Your task to perform on an android device: check data usage Image 0: 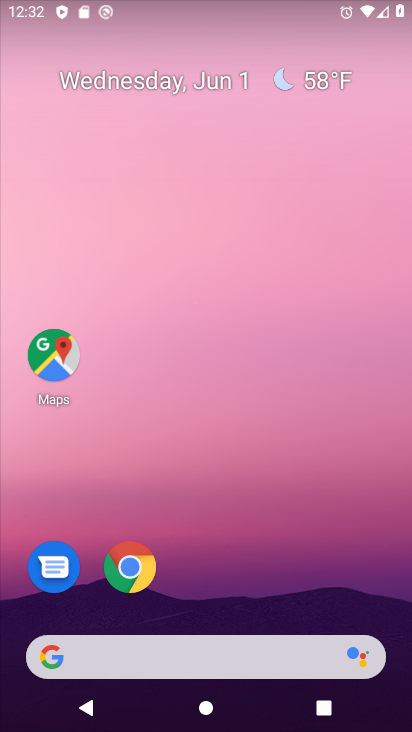
Step 0: click (395, 410)
Your task to perform on an android device: check data usage Image 1: 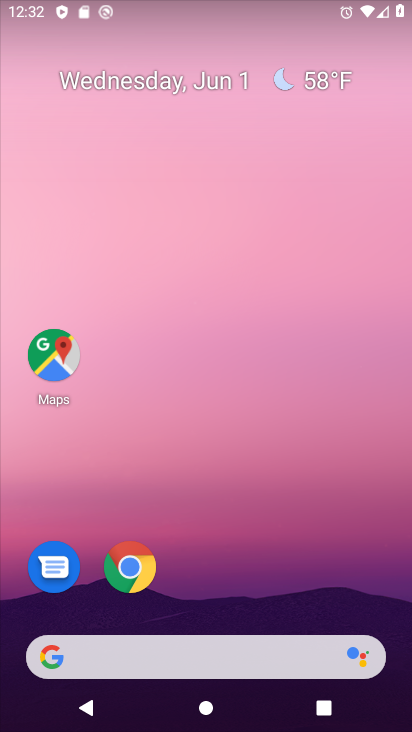
Step 1: drag from (245, 581) to (287, 70)
Your task to perform on an android device: check data usage Image 2: 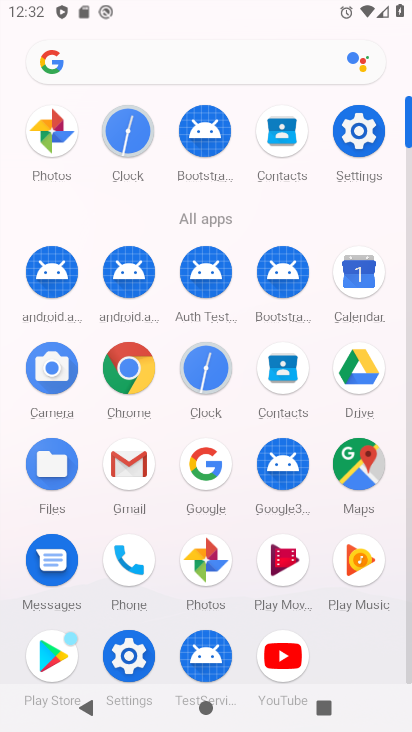
Step 2: click (365, 122)
Your task to perform on an android device: check data usage Image 3: 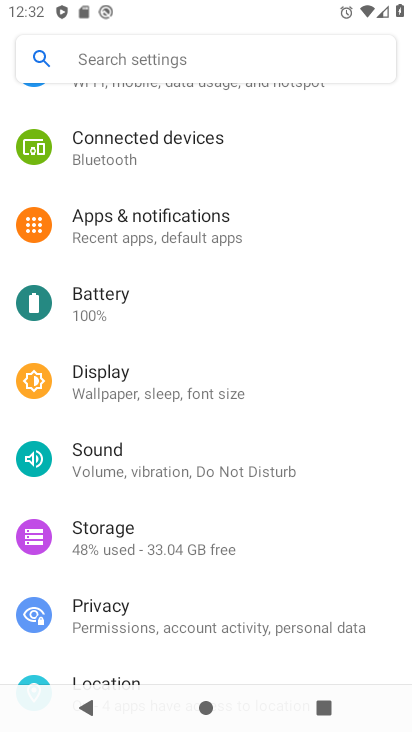
Step 3: drag from (143, 155) to (189, 483)
Your task to perform on an android device: check data usage Image 4: 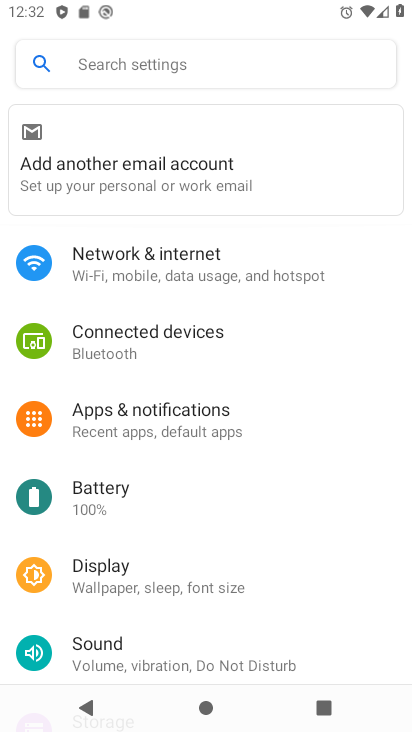
Step 4: click (116, 257)
Your task to perform on an android device: check data usage Image 5: 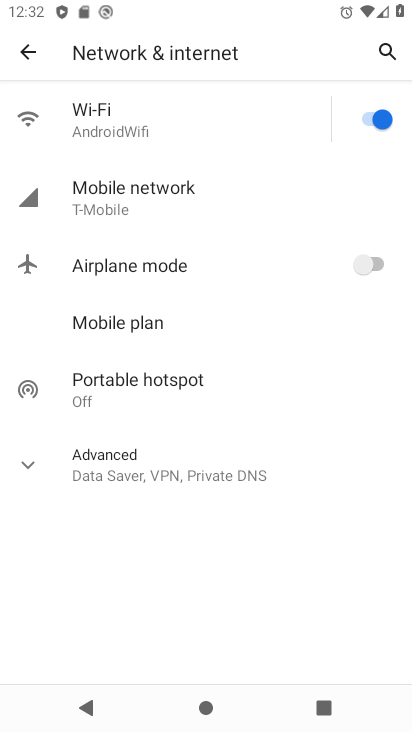
Step 5: click (120, 203)
Your task to perform on an android device: check data usage Image 6: 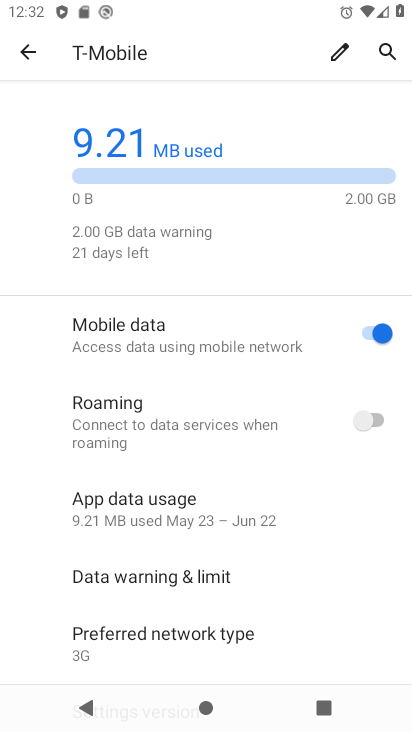
Step 6: click (122, 203)
Your task to perform on an android device: check data usage Image 7: 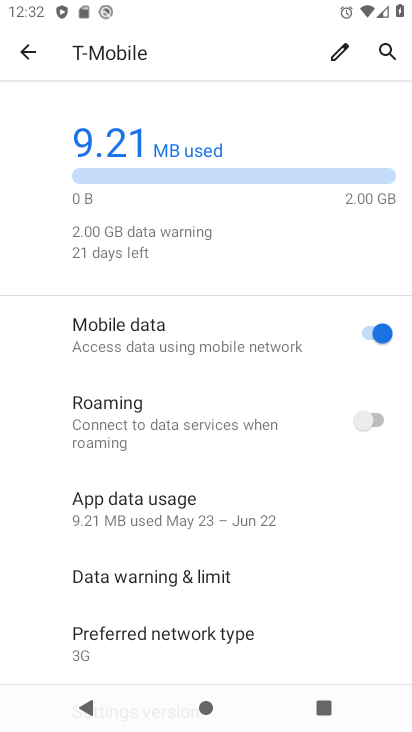
Step 7: drag from (176, 608) to (189, 427)
Your task to perform on an android device: check data usage Image 8: 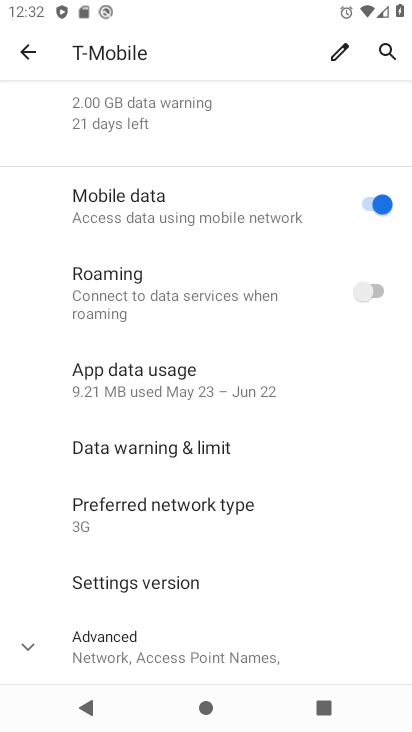
Step 8: click (144, 380)
Your task to perform on an android device: check data usage Image 9: 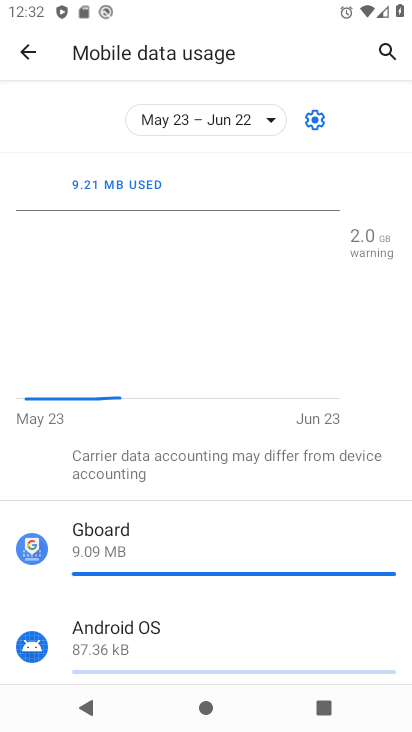
Step 9: drag from (180, 312) to (211, 401)
Your task to perform on an android device: check data usage Image 10: 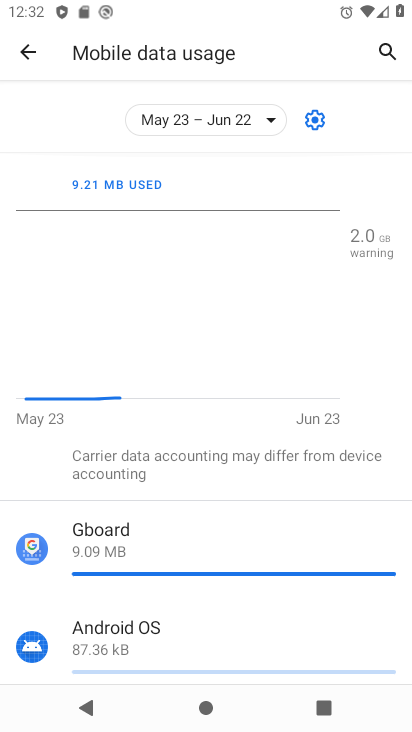
Step 10: click (97, 174)
Your task to perform on an android device: check data usage Image 11: 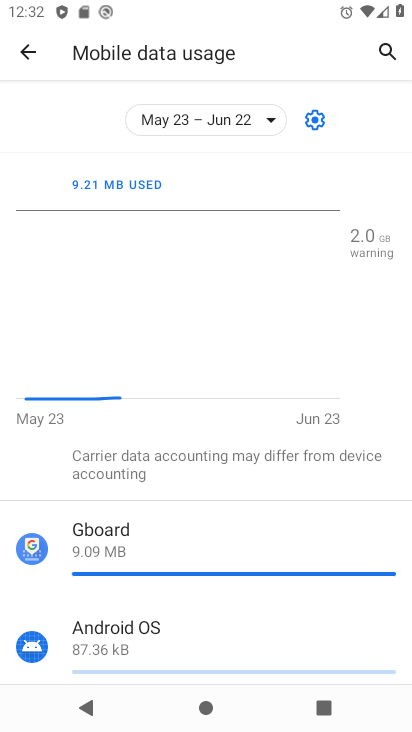
Step 11: click (98, 179)
Your task to perform on an android device: check data usage Image 12: 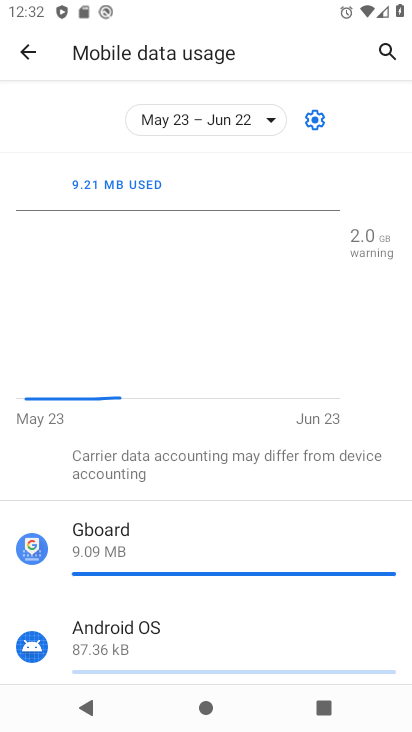
Step 12: task complete